Your task to perform on an android device: stop showing notifications on the lock screen Image 0: 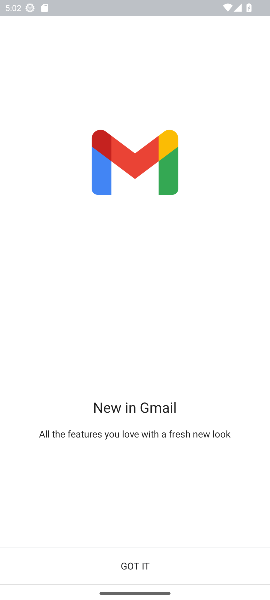
Step 0: press home button
Your task to perform on an android device: stop showing notifications on the lock screen Image 1: 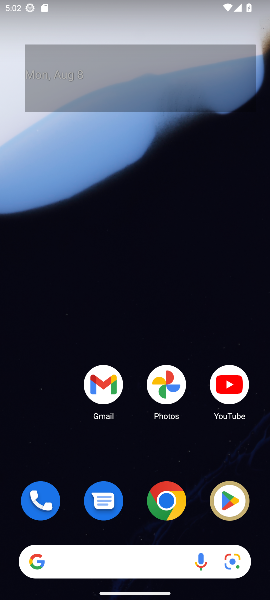
Step 1: drag from (15, 562) to (172, 272)
Your task to perform on an android device: stop showing notifications on the lock screen Image 2: 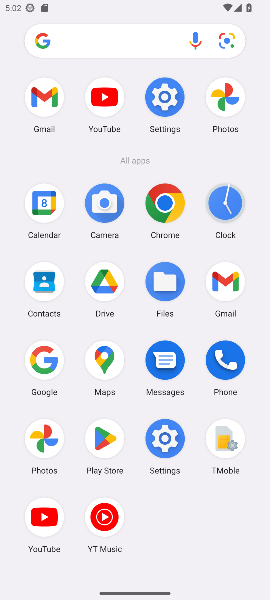
Step 2: click (163, 451)
Your task to perform on an android device: stop showing notifications on the lock screen Image 3: 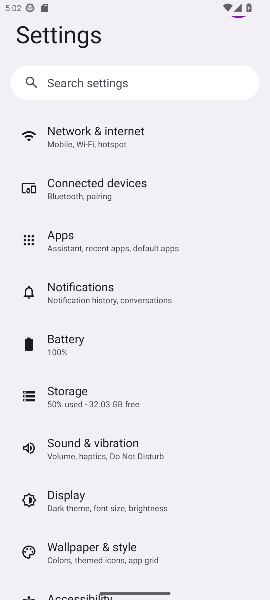
Step 3: click (87, 292)
Your task to perform on an android device: stop showing notifications on the lock screen Image 4: 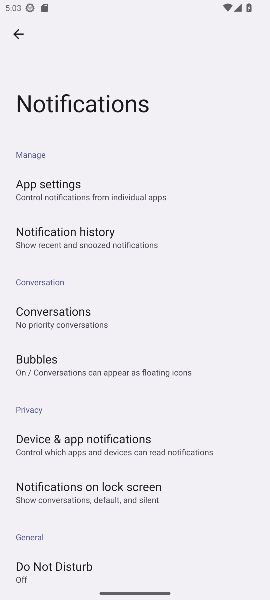
Step 4: click (216, 551)
Your task to perform on an android device: stop showing notifications on the lock screen Image 5: 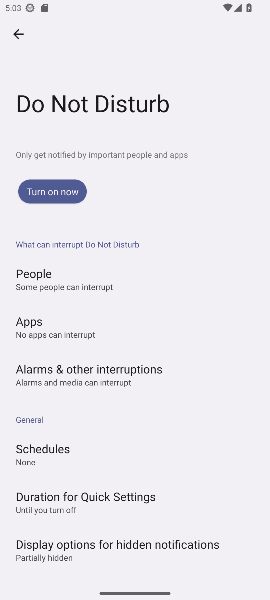
Step 5: click (13, 35)
Your task to perform on an android device: stop showing notifications on the lock screen Image 6: 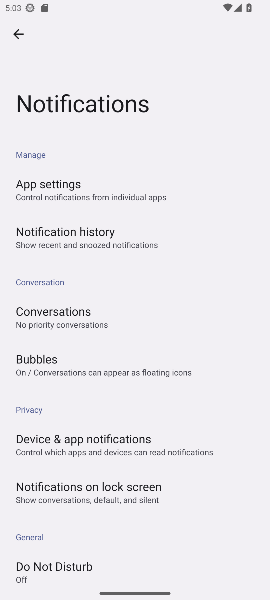
Step 6: click (251, 542)
Your task to perform on an android device: stop showing notifications on the lock screen Image 7: 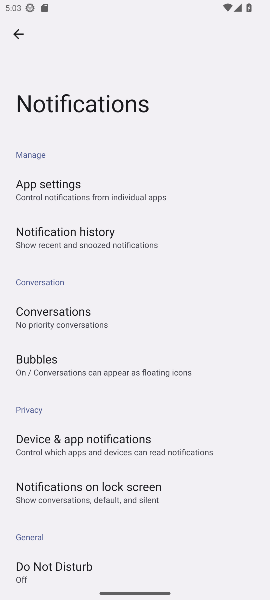
Step 7: drag from (251, 542) to (266, 90)
Your task to perform on an android device: stop showing notifications on the lock screen Image 8: 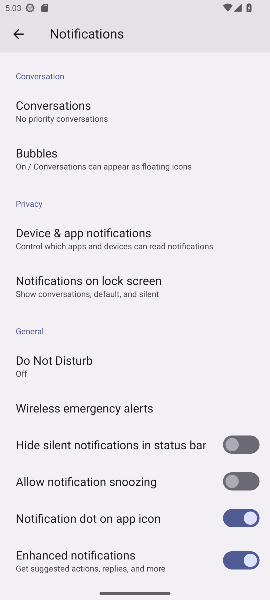
Step 8: click (58, 278)
Your task to perform on an android device: stop showing notifications on the lock screen Image 9: 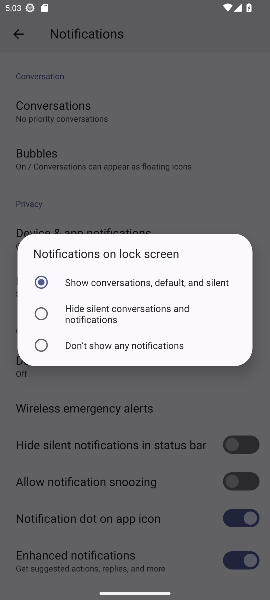
Step 9: click (38, 346)
Your task to perform on an android device: stop showing notifications on the lock screen Image 10: 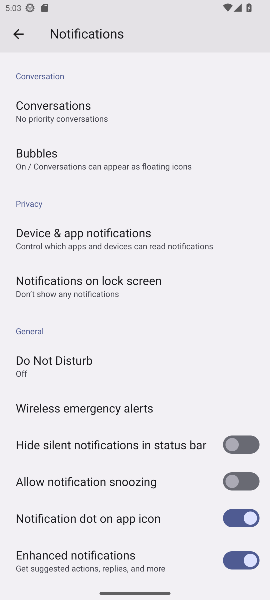
Step 10: task complete